Your task to perform on an android device: Go to Android settings Image 0: 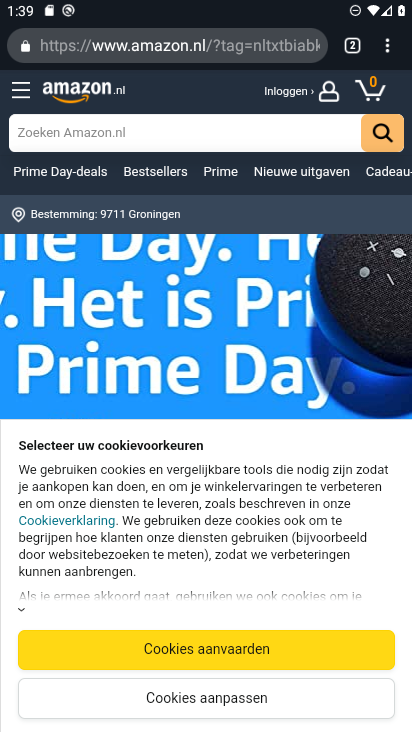
Step 0: press home button
Your task to perform on an android device: Go to Android settings Image 1: 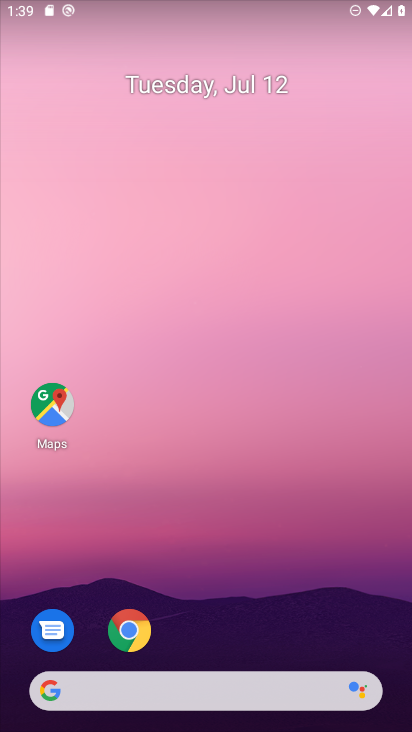
Step 1: drag from (325, 590) to (327, 129)
Your task to perform on an android device: Go to Android settings Image 2: 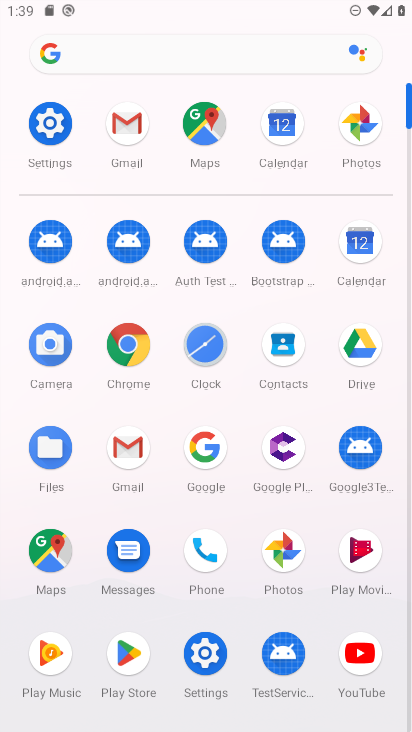
Step 2: click (209, 655)
Your task to perform on an android device: Go to Android settings Image 3: 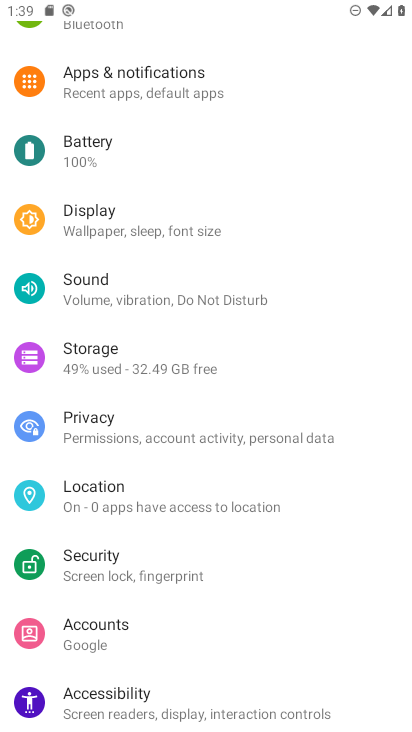
Step 3: drag from (339, 661) to (347, 248)
Your task to perform on an android device: Go to Android settings Image 4: 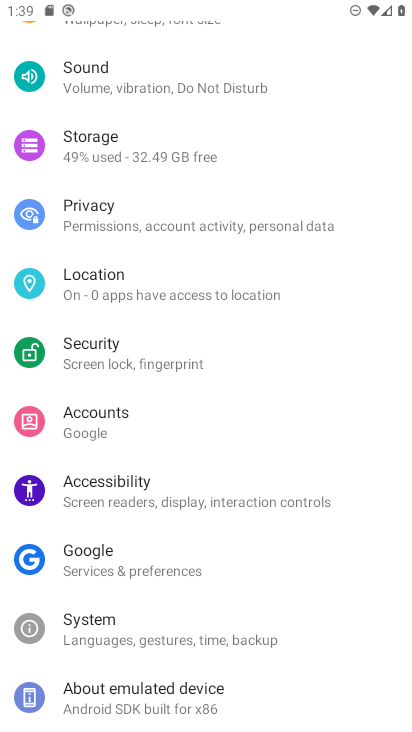
Step 4: click (118, 690)
Your task to perform on an android device: Go to Android settings Image 5: 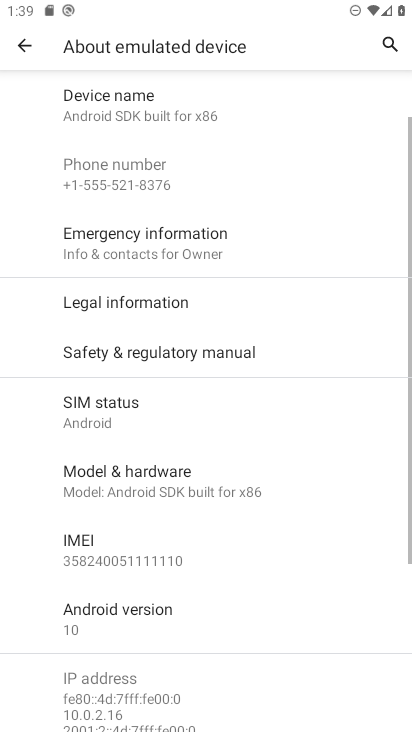
Step 5: task complete